Your task to perform on an android device: Open Google Image 0: 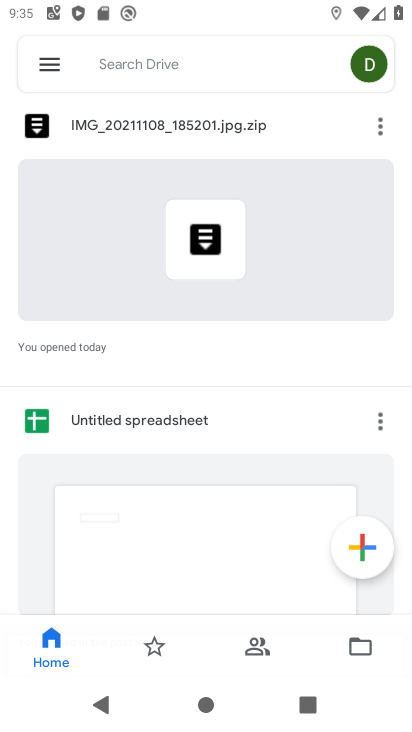
Step 0: press home button
Your task to perform on an android device: Open Google Image 1: 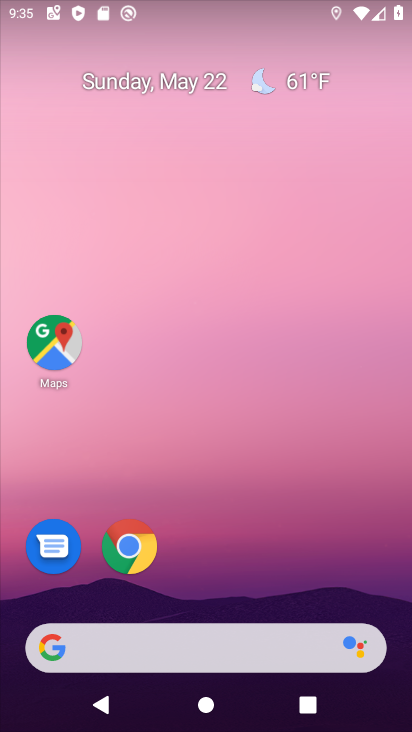
Step 1: drag from (270, 544) to (168, 49)
Your task to perform on an android device: Open Google Image 2: 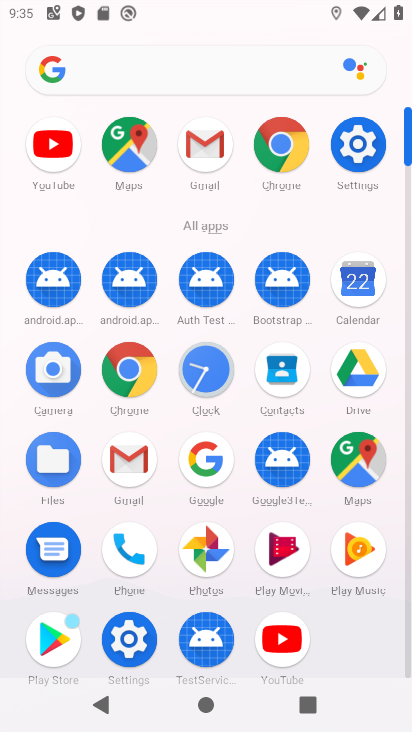
Step 2: click (201, 460)
Your task to perform on an android device: Open Google Image 3: 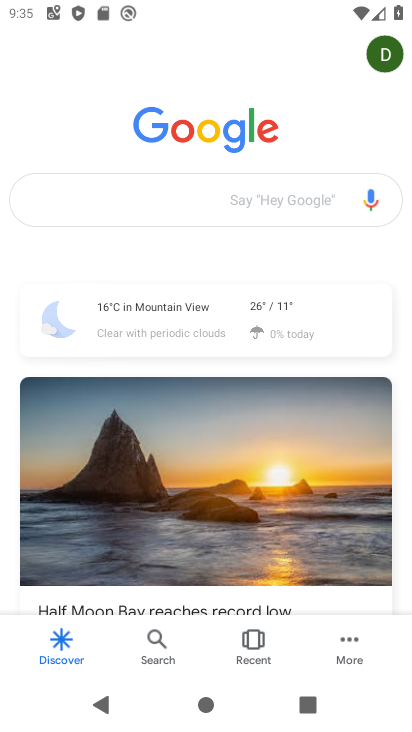
Step 3: task complete